Your task to perform on an android device: Go to location settings Image 0: 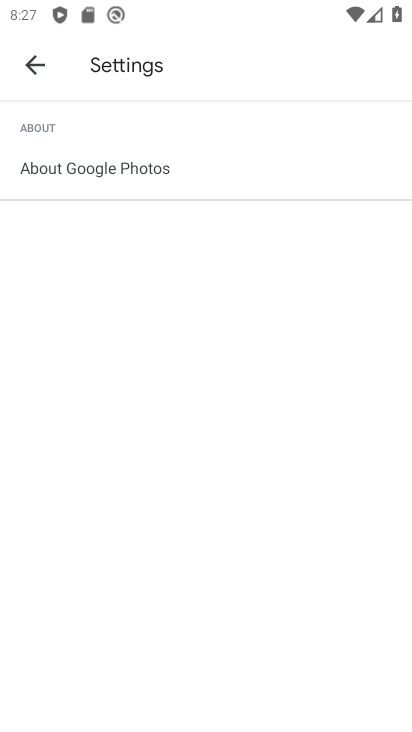
Step 0: press home button
Your task to perform on an android device: Go to location settings Image 1: 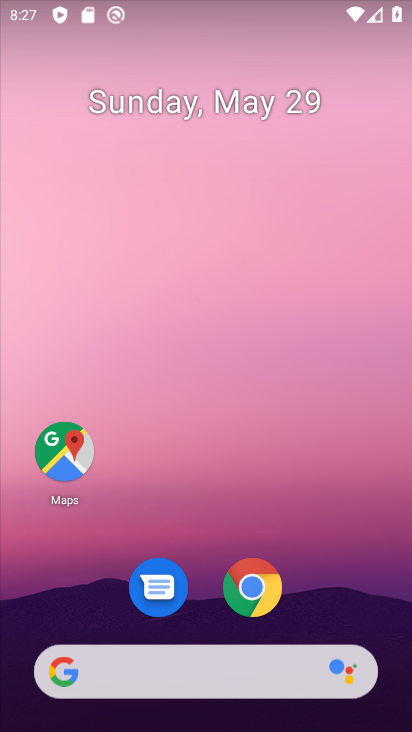
Step 1: drag from (195, 627) to (398, 615)
Your task to perform on an android device: Go to location settings Image 2: 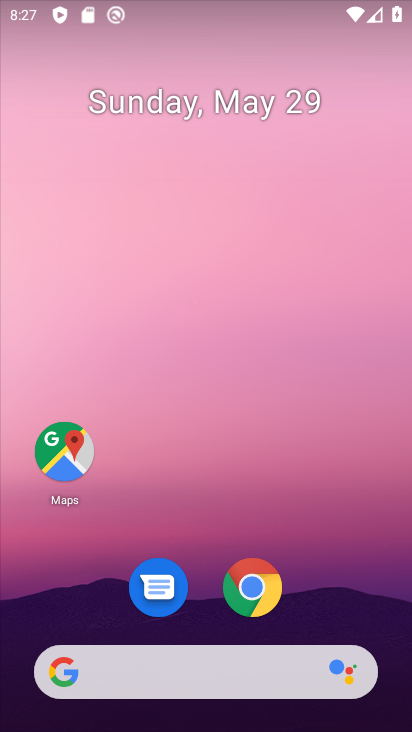
Step 2: drag from (267, 131) to (255, 62)
Your task to perform on an android device: Go to location settings Image 3: 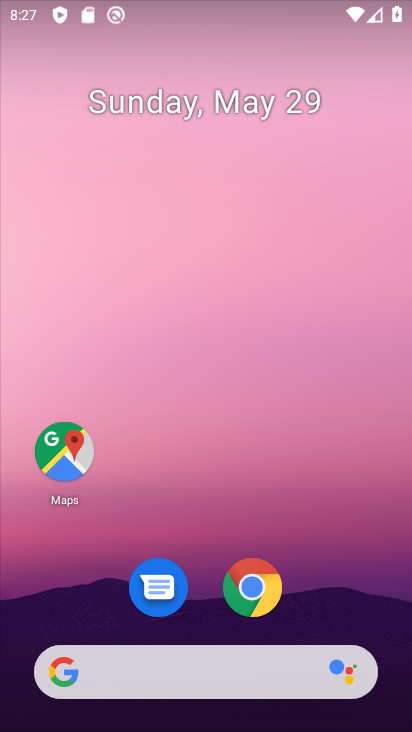
Step 3: drag from (189, 631) to (219, 17)
Your task to perform on an android device: Go to location settings Image 4: 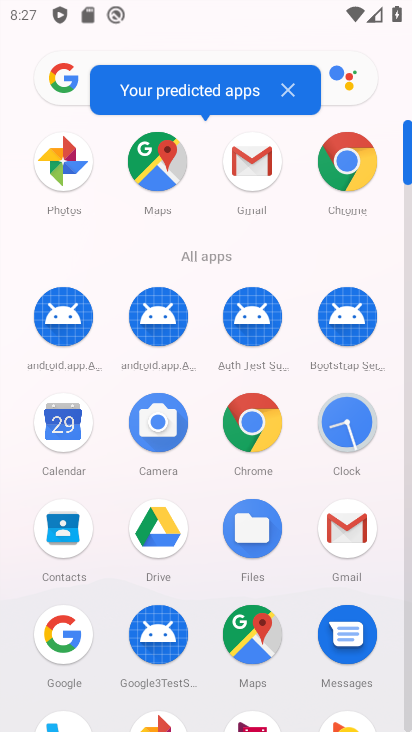
Step 4: drag from (284, 603) to (305, 296)
Your task to perform on an android device: Go to location settings Image 5: 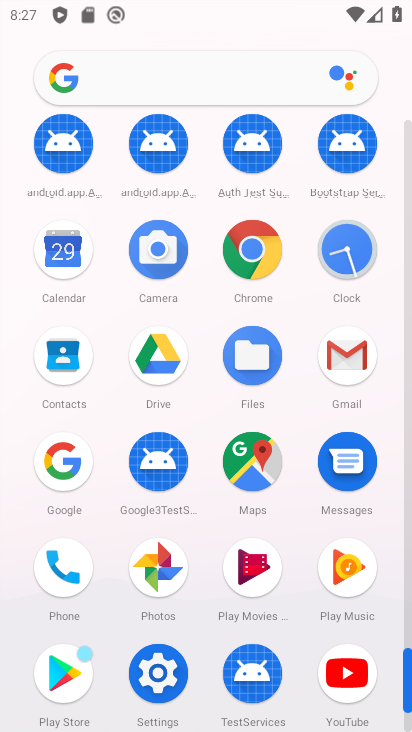
Step 5: click (130, 660)
Your task to perform on an android device: Go to location settings Image 6: 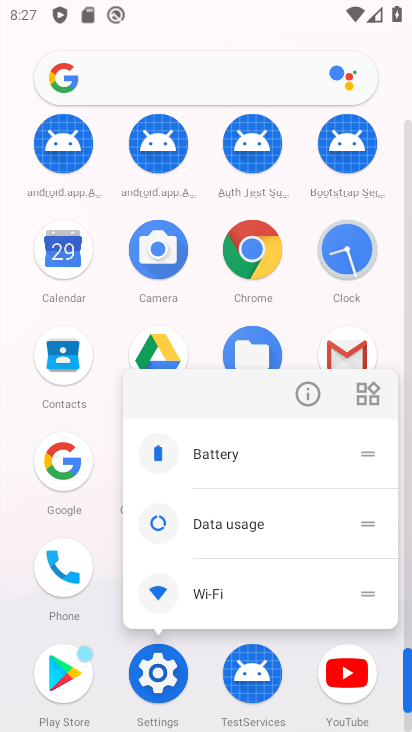
Step 6: click (148, 670)
Your task to perform on an android device: Go to location settings Image 7: 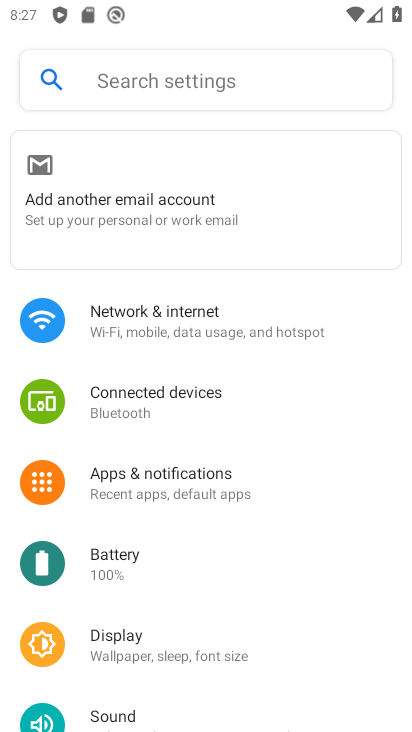
Step 7: drag from (148, 670) to (206, 264)
Your task to perform on an android device: Go to location settings Image 8: 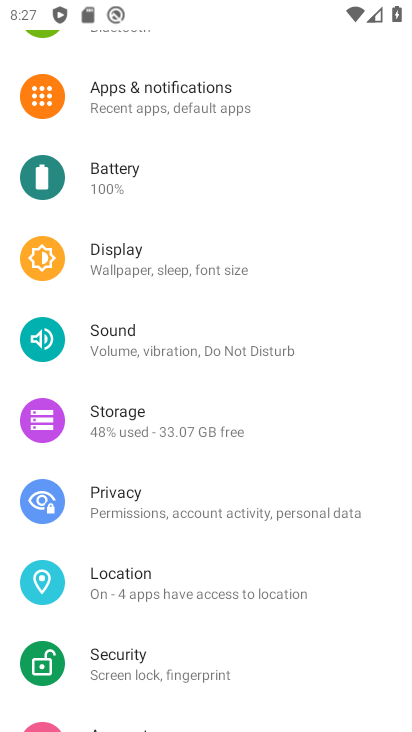
Step 8: click (103, 584)
Your task to perform on an android device: Go to location settings Image 9: 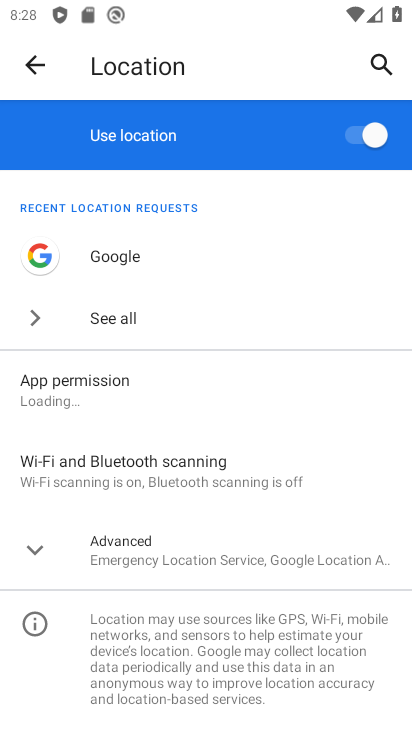
Step 9: task complete